Your task to perform on an android device: see sites visited before in the chrome app Image 0: 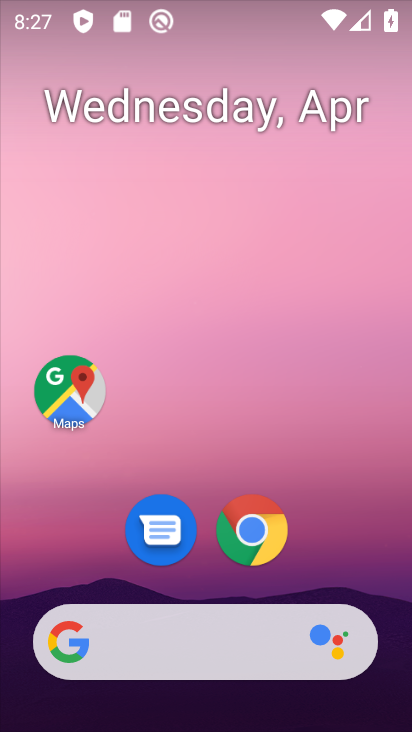
Step 0: drag from (345, 577) to (309, 267)
Your task to perform on an android device: see sites visited before in the chrome app Image 1: 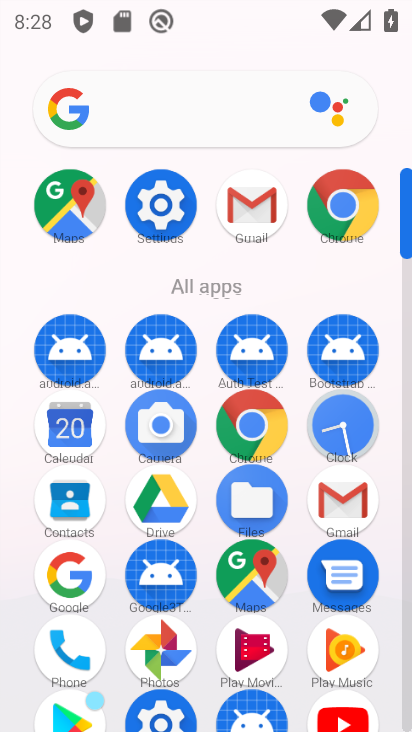
Step 1: click (330, 223)
Your task to perform on an android device: see sites visited before in the chrome app Image 2: 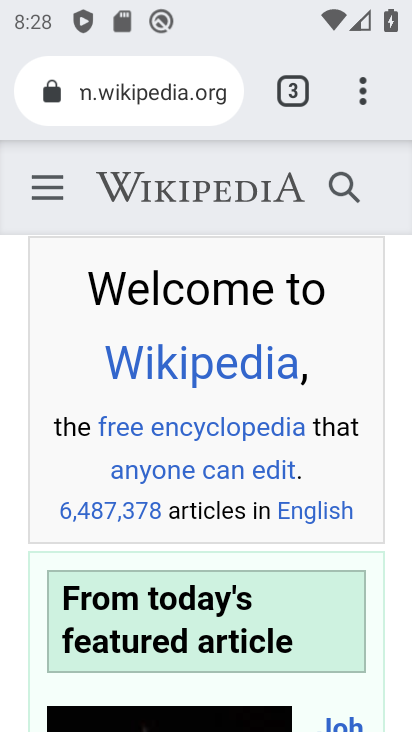
Step 2: click (358, 112)
Your task to perform on an android device: see sites visited before in the chrome app Image 3: 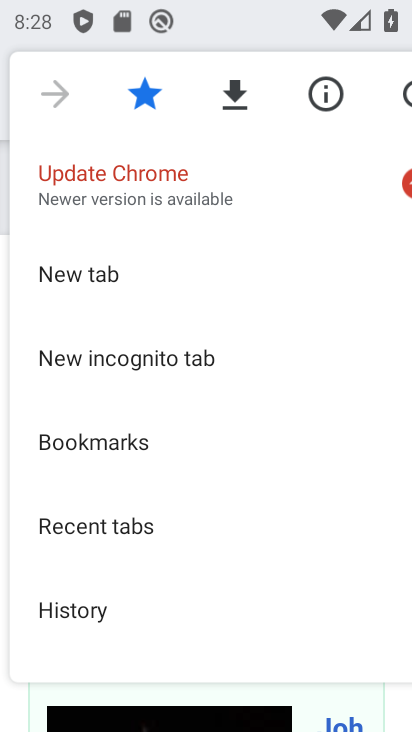
Step 3: drag from (191, 620) to (193, 347)
Your task to perform on an android device: see sites visited before in the chrome app Image 4: 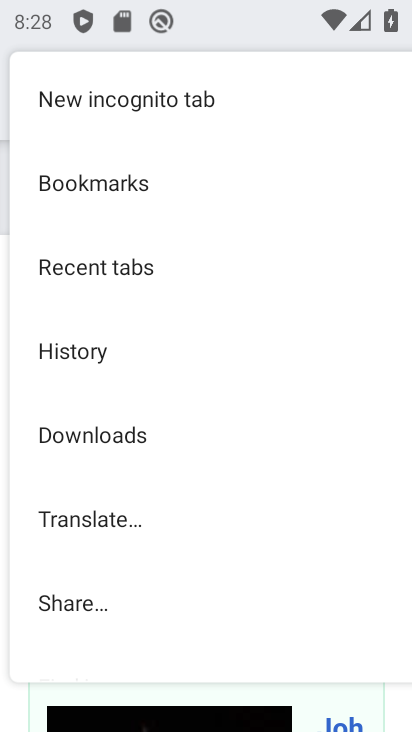
Step 4: drag from (228, 582) to (211, 356)
Your task to perform on an android device: see sites visited before in the chrome app Image 5: 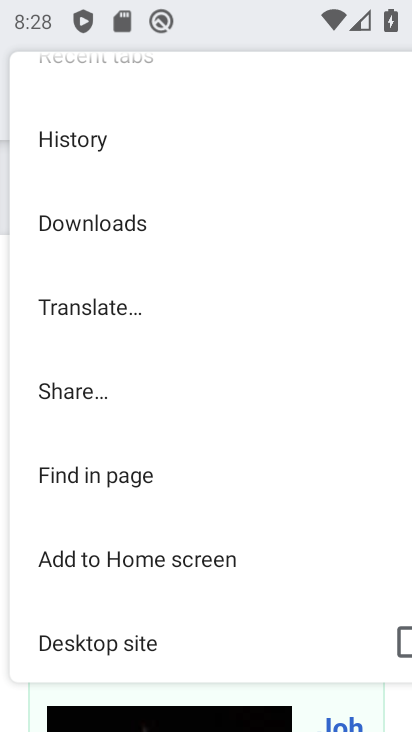
Step 5: click (190, 456)
Your task to perform on an android device: see sites visited before in the chrome app Image 6: 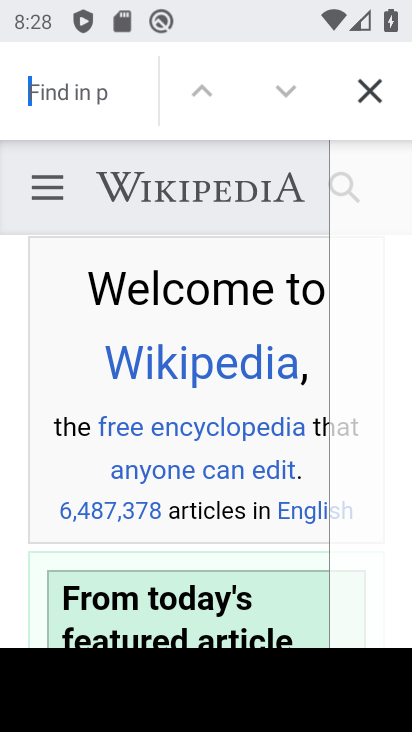
Step 6: task complete